Your task to perform on an android device: turn on priority inbox in the gmail app Image 0: 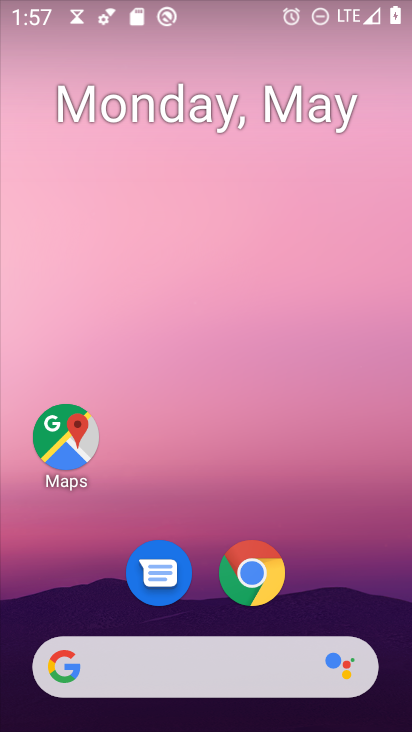
Step 0: drag from (282, 653) to (285, 76)
Your task to perform on an android device: turn on priority inbox in the gmail app Image 1: 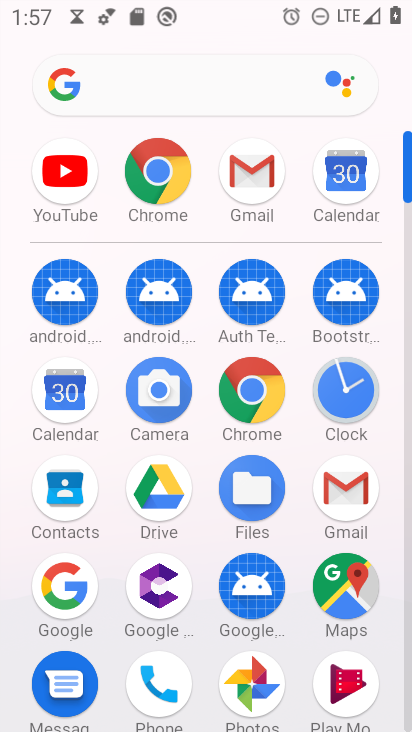
Step 1: click (337, 484)
Your task to perform on an android device: turn on priority inbox in the gmail app Image 2: 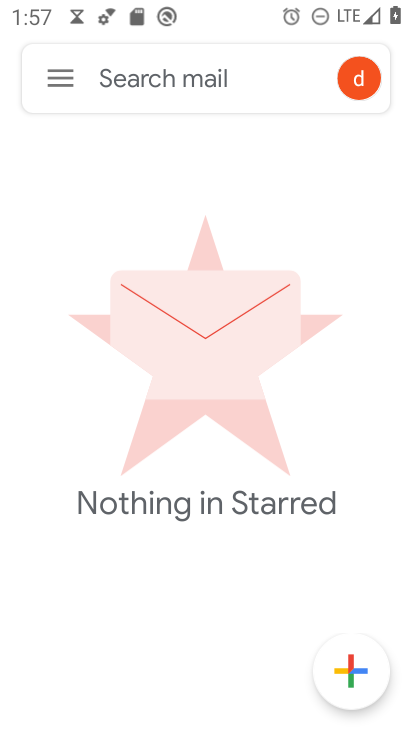
Step 2: click (65, 74)
Your task to perform on an android device: turn on priority inbox in the gmail app Image 3: 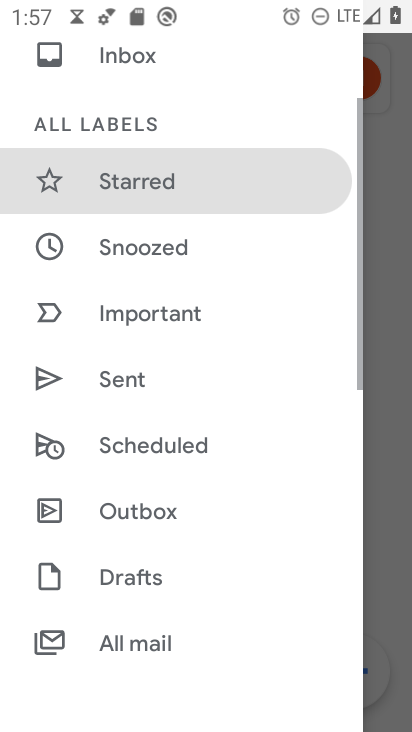
Step 3: drag from (100, 572) to (157, 12)
Your task to perform on an android device: turn on priority inbox in the gmail app Image 4: 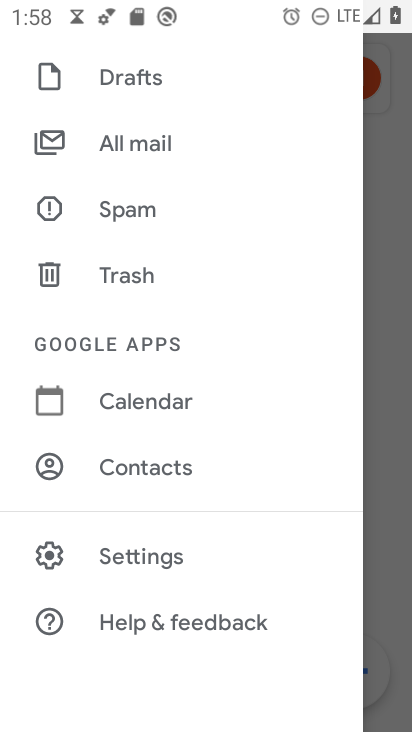
Step 4: click (151, 575)
Your task to perform on an android device: turn on priority inbox in the gmail app Image 5: 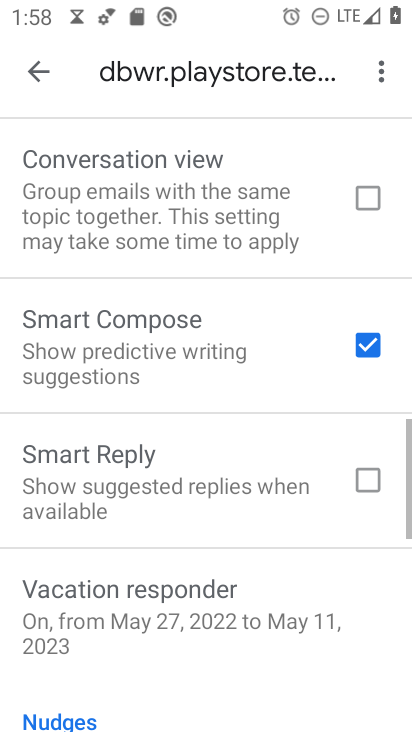
Step 5: drag from (155, 150) to (157, 728)
Your task to perform on an android device: turn on priority inbox in the gmail app Image 6: 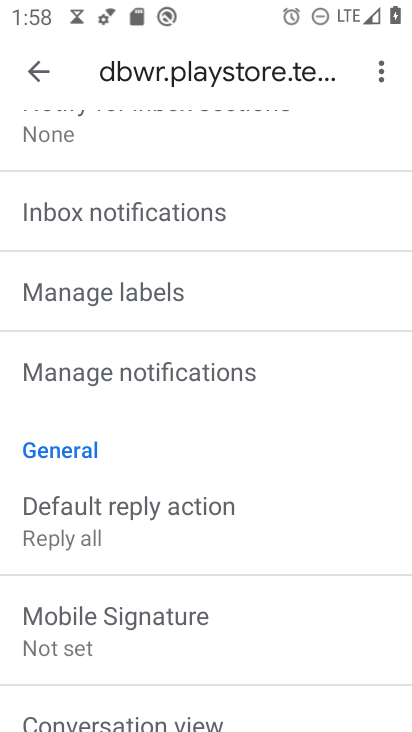
Step 6: drag from (187, 293) to (162, 717)
Your task to perform on an android device: turn on priority inbox in the gmail app Image 7: 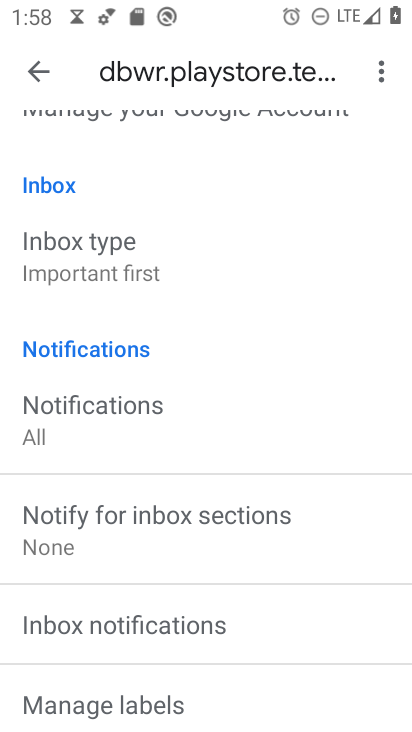
Step 7: click (116, 265)
Your task to perform on an android device: turn on priority inbox in the gmail app Image 8: 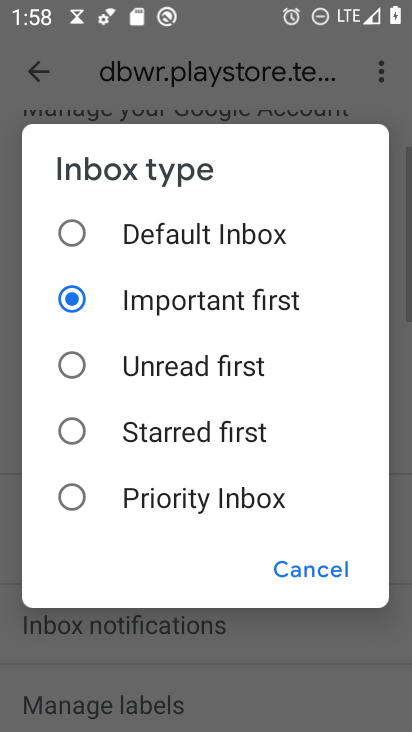
Step 8: click (122, 498)
Your task to perform on an android device: turn on priority inbox in the gmail app Image 9: 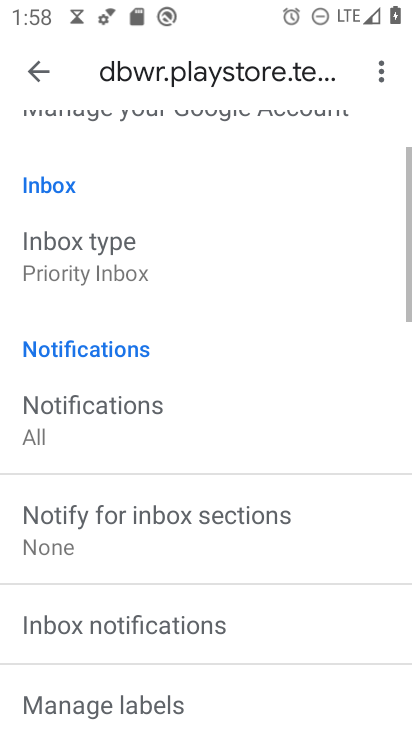
Step 9: task complete